Your task to perform on an android device: Go to Amazon Image 0: 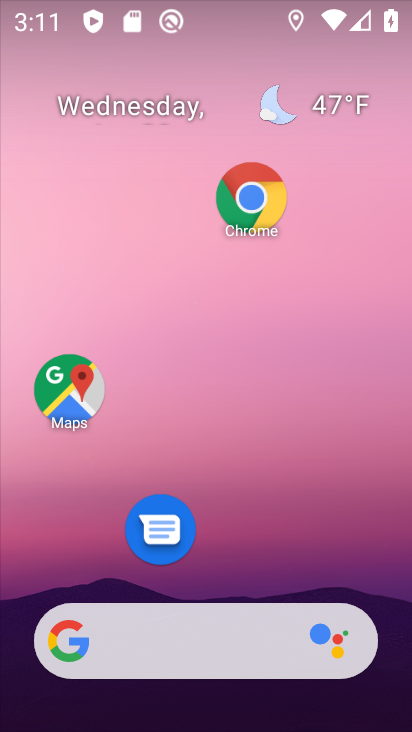
Step 0: click (251, 202)
Your task to perform on an android device: Go to Amazon Image 1: 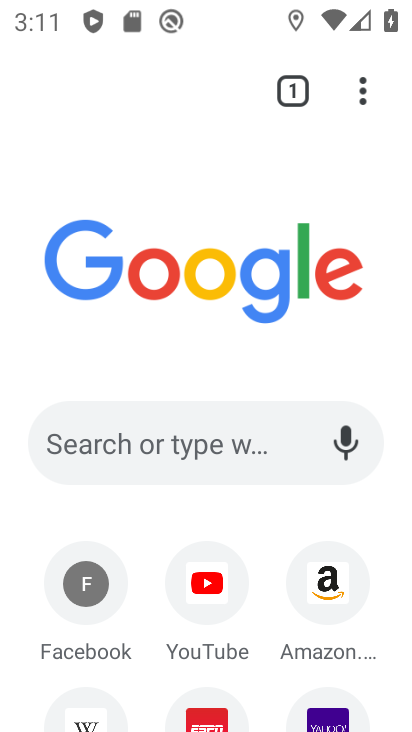
Step 1: click (322, 580)
Your task to perform on an android device: Go to Amazon Image 2: 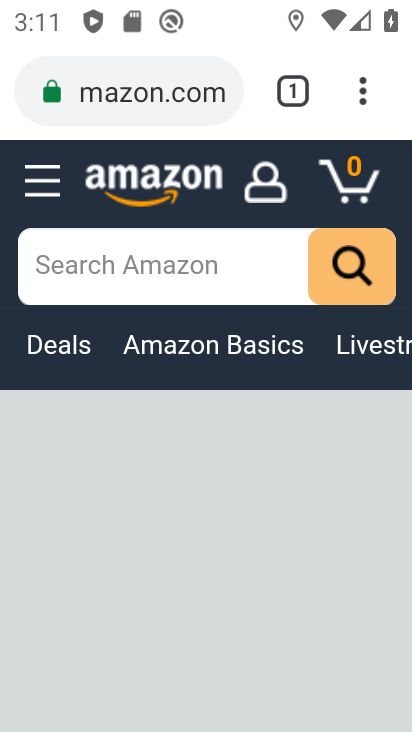
Step 2: task complete